Your task to perform on an android device: What is the news today? Image 0: 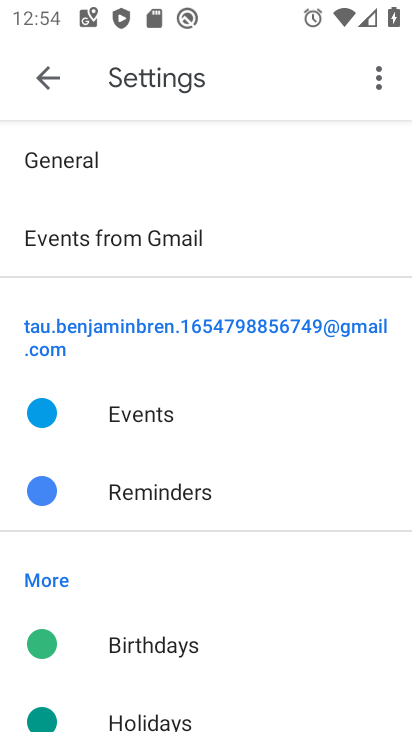
Step 0: press home button
Your task to perform on an android device: What is the news today? Image 1: 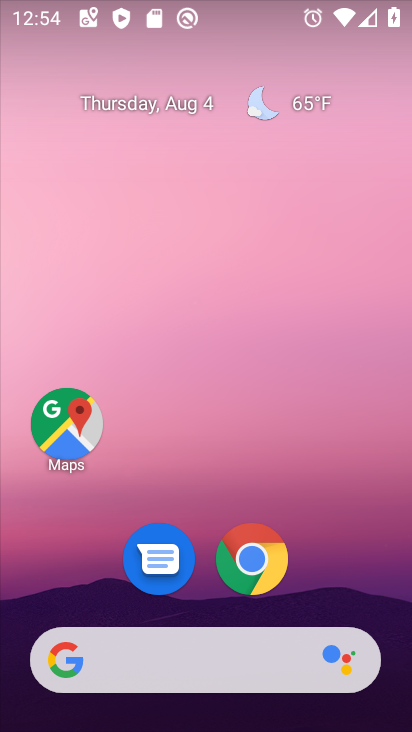
Step 1: drag from (190, 659) to (176, 73)
Your task to perform on an android device: What is the news today? Image 2: 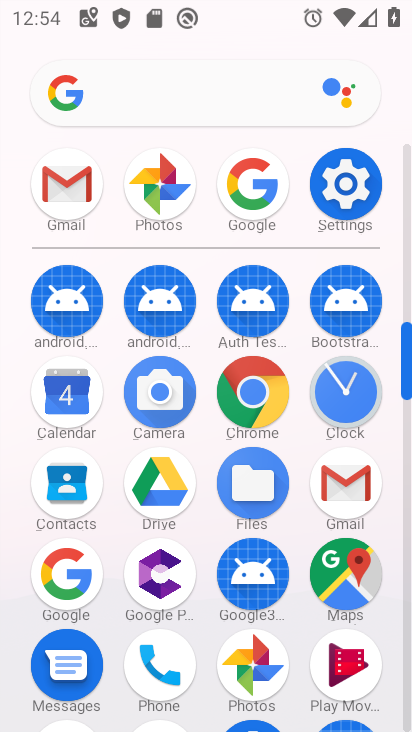
Step 2: click (246, 181)
Your task to perform on an android device: What is the news today? Image 3: 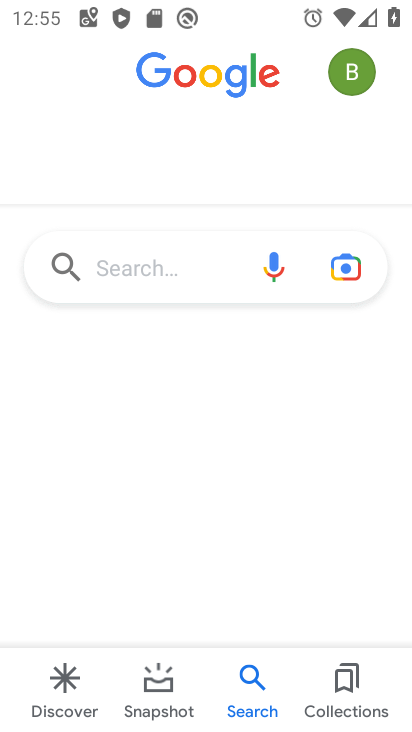
Step 3: click (185, 271)
Your task to perform on an android device: What is the news today? Image 4: 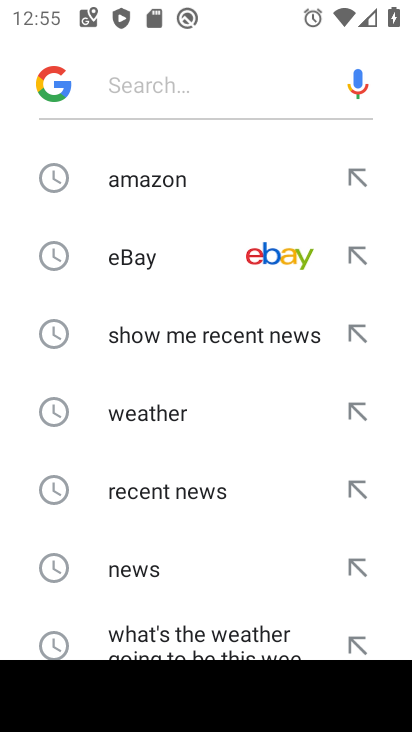
Step 4: type "news today"
Your task to perform on an android device: What is the news today? Image 5: 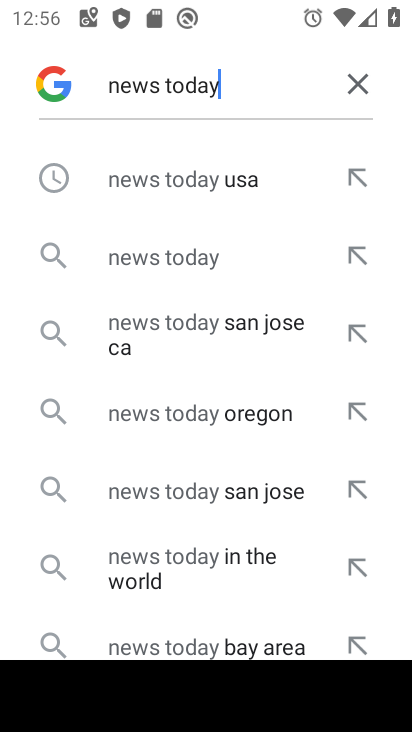
Step 5: click (223, 256)
Your task to perform on an android device: What is the news today? Image 6: 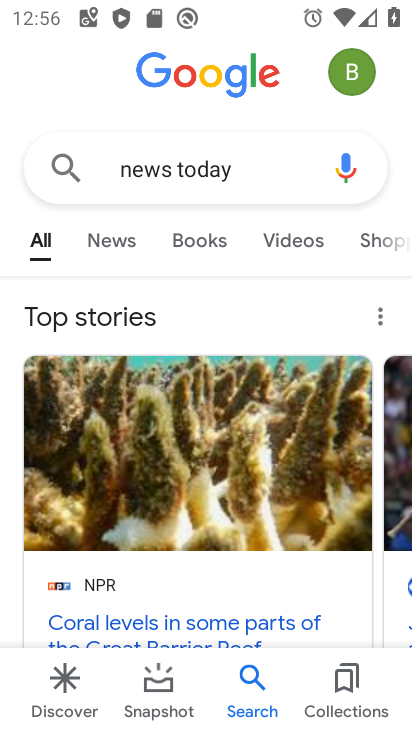
Step 6: click (209, 630)
Your task to perform on an android device: What is the news today? Image 7: 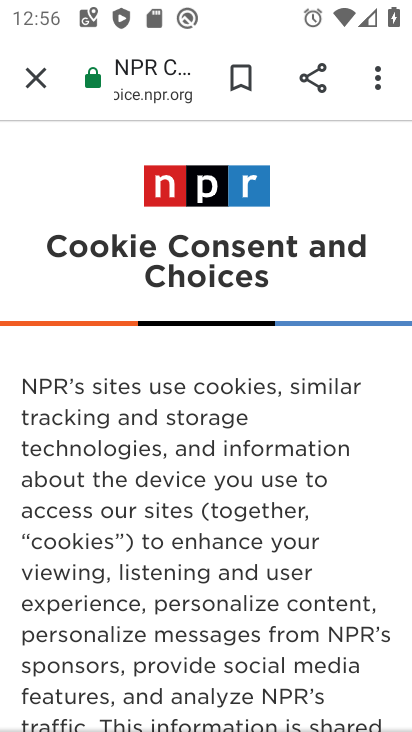
Step 7: task complete